Your task to perform on an android device: Search for Mexican restaurants on Maps Image 0: 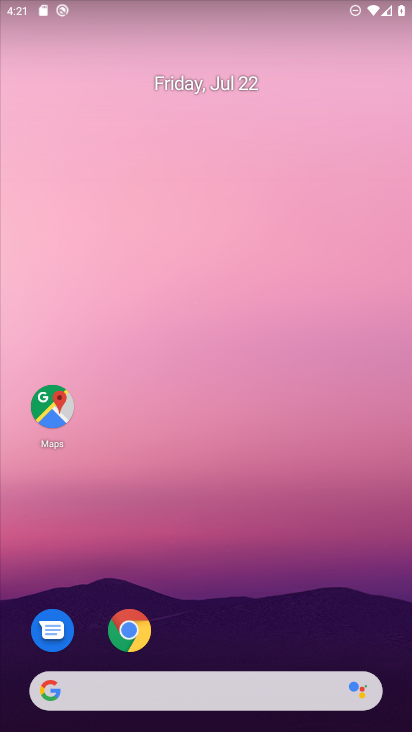
Step 0: click (65, 413)
Your task to perform on an android device: Search for Mexican restaurants on Maps Image 1: 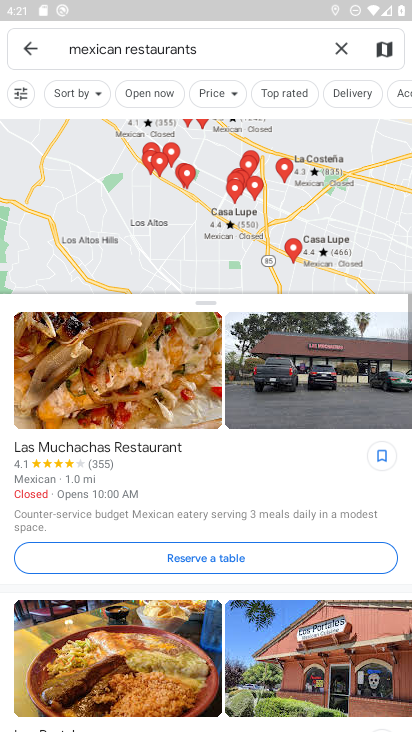
Step 1: task complete